Your task to perform on an android device: turn off location history Image 0: 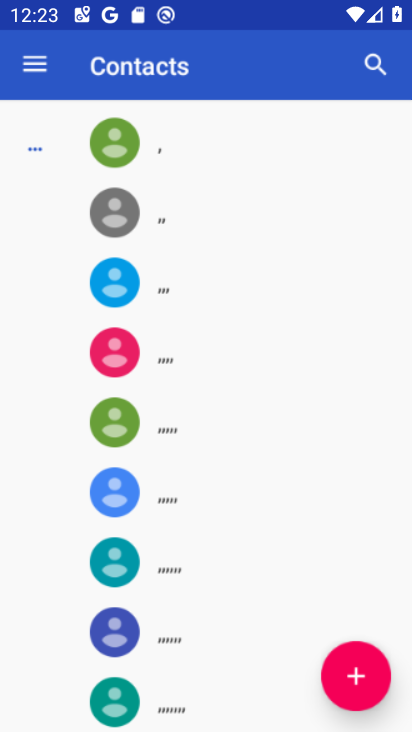
Step 0: drag from (375, 604) to (301, 223)
Your task to perform on an android device: turn off location history Image 1: 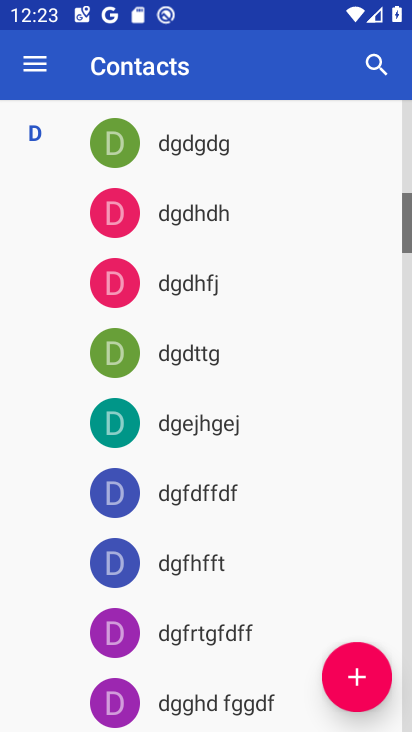
Step 1: press home button
Your task to perform on an android device: turn off location history Image 2: 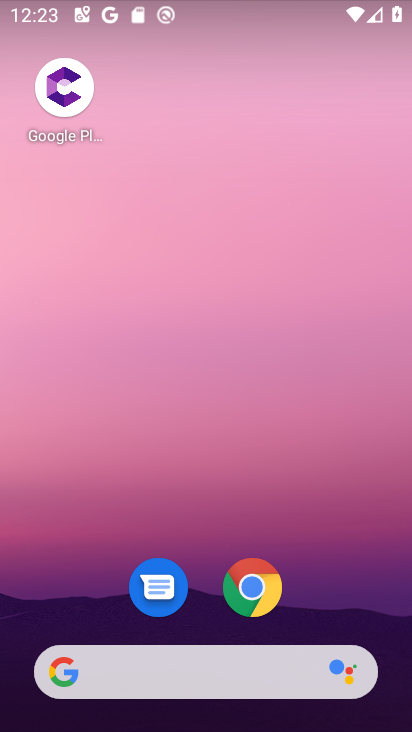
Step 2: drag from (352, 606) to (288, 25)
Your task to perform on an android device: turn off location history Image 3: 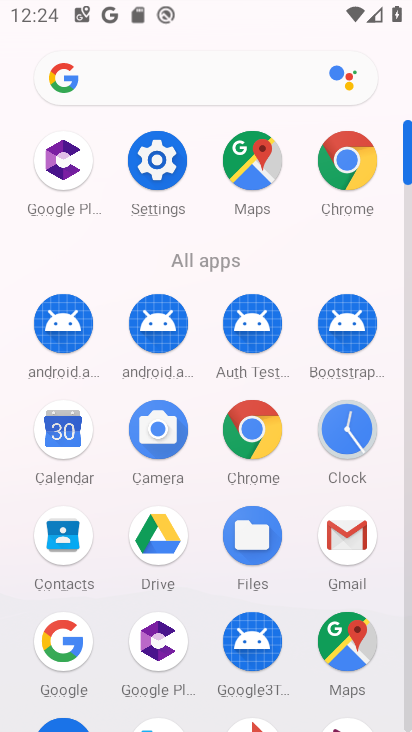
Step 3: click (260, 156)
Your task to perform on an android device: turn off location history Image 4: 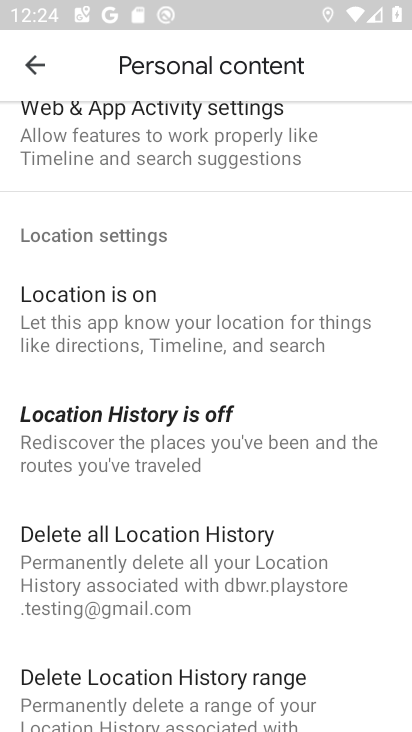
Step 4: task complete